Your task to perform on an android device: Open Yahoo.com Image 0: 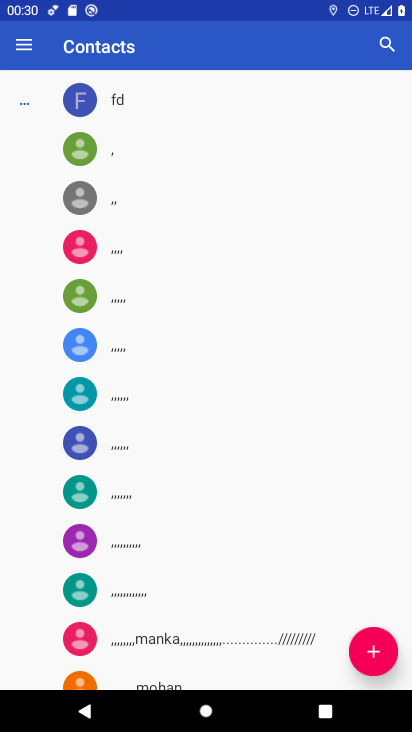
Step 0: press home button
Your task to perform on an android device: Open Yahoo.com Image 1: 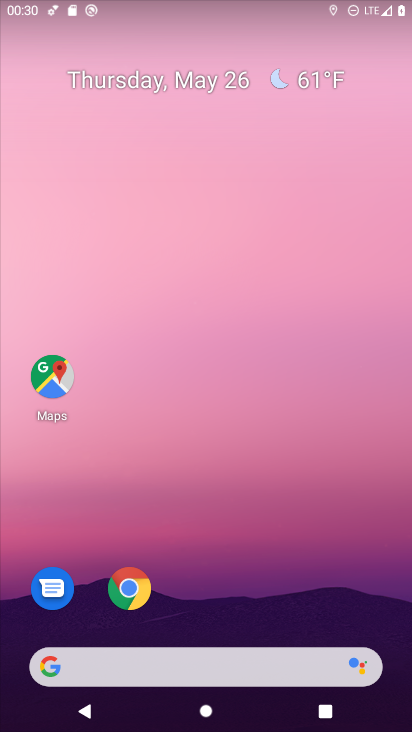
Step 1: drag from (258, 548) to (172, 149)
Your task to perform on an android device: Open Yahoo.com Image 2: 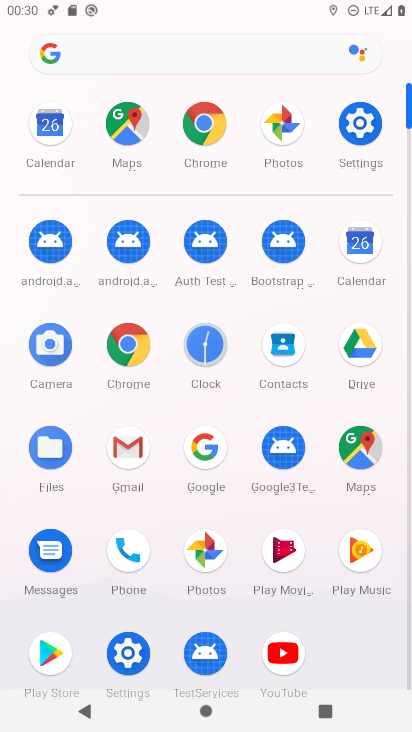
Step 2: click (203, 127)
Your task to perform on an android device: Open Yahoo.com Image 3: 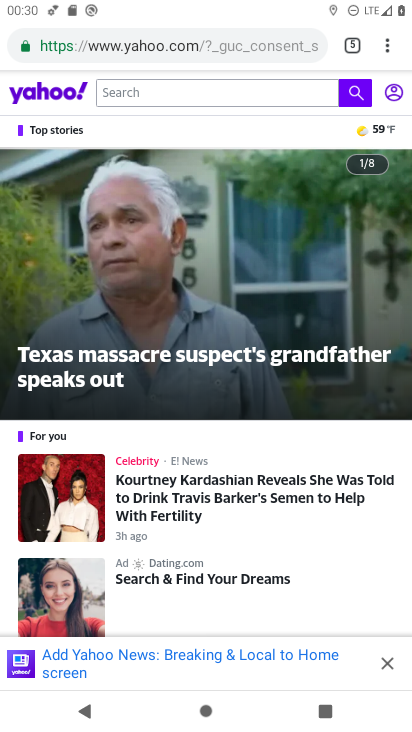
Step 3: task complete